Your task to perform on an android device: Search for "dell xps" on bestbuy.com, select the first entry, and add it to the cart. Image 0: 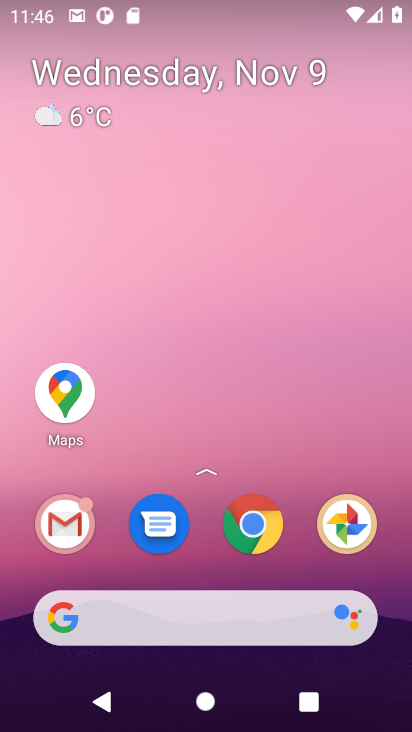
Step 0: click (254, 535)
Your task to perform on an android device: Search for "dell xps" on bestbuy.com, select the first entry, and add it to the cart. Image 1: 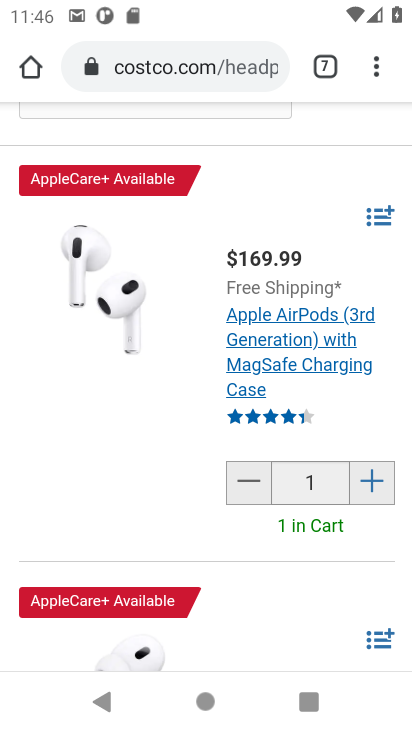
Step 1: click (326, 64)
Your task to perform on an android device: Search for "dell xps" on bestbuy.com, select the first entry, and add it to the cart. Image 2: 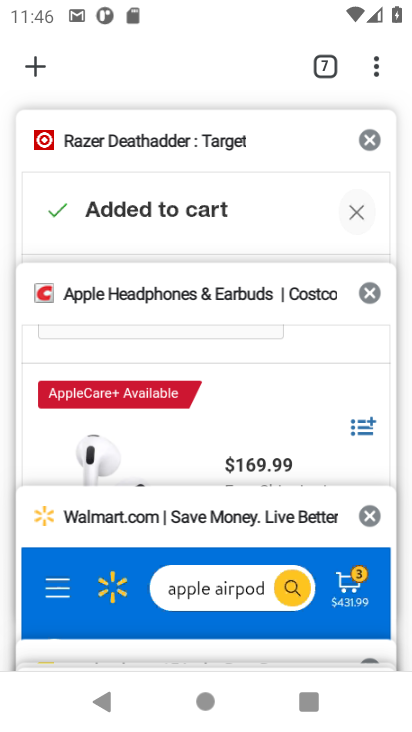
Step 2: drag from (93, 593) to (129, 535)
Your task to perform on an android device: Search for "dell xps" on bestbuy.com, select the first entry, and add it to the cart. Image 3: 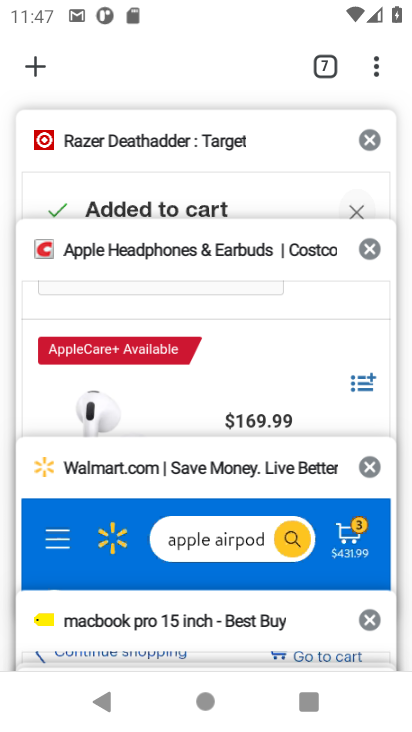
Step 3: click (129, 633)
Your task to perform on an android device: Search for "dell xps" on bestbuy.com, select the first entry, and add it to the cart. Image 4: 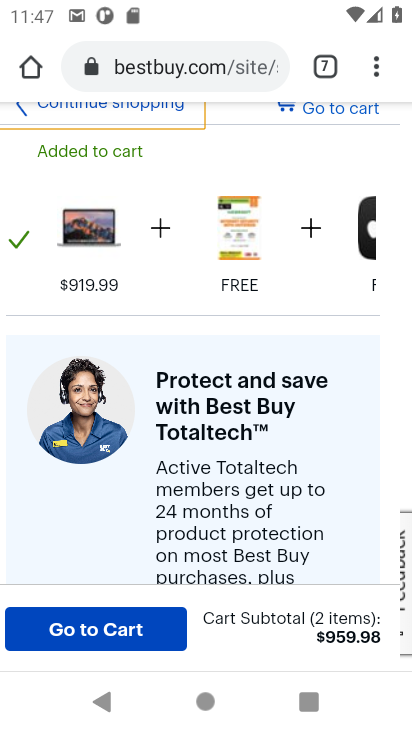
Step 4: drag from (244, 125) to (193, 352)
Your task to perform on an android device: Search for "dell xps" on bestbuy.com, select the first entry, and add it to the cart. Image 5: 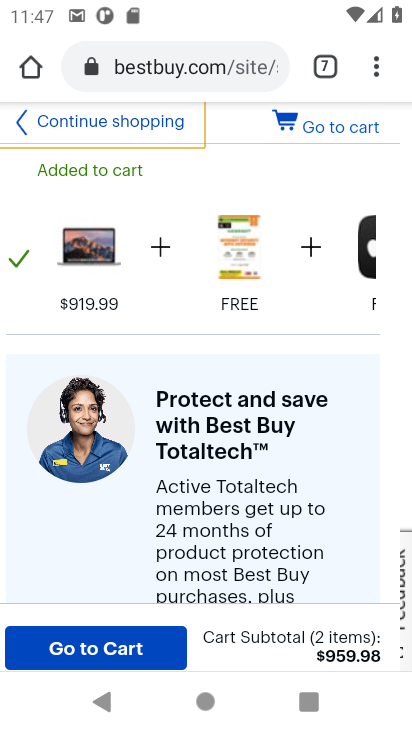
Step 5: click (146, 122)
Your task to perform on an android device: Search for "dell xps" on bestbuy.com, select the first entry, and add it to the cart. Image 6: 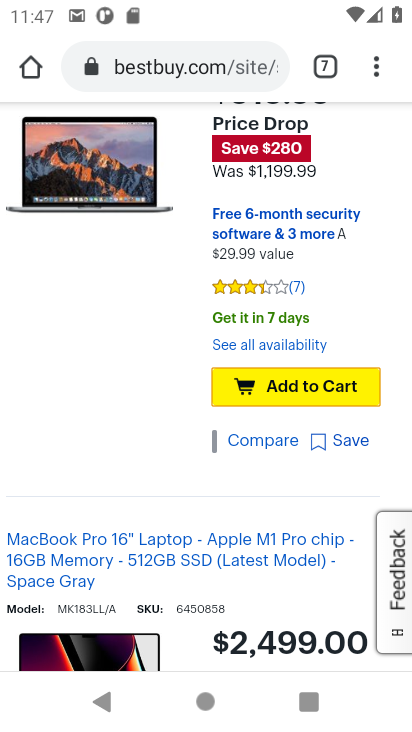
Step 6: drag from (320, 186) to (271, 459)
Your task to perform on an android device: Search for "dell xps" on bestbuy.com, select the first entry, and add it to the cart. Image 7: 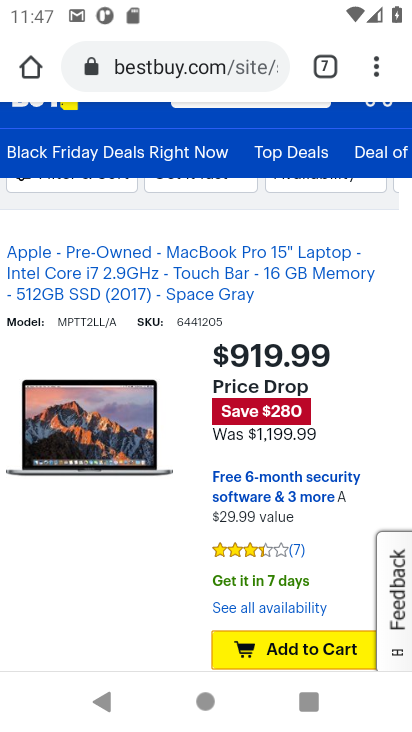
Step 7: drag from (212, 129) to (189, 440)
Your task to perform on an android device: Search for "dell xps" on bestbuy.com, select the first entry, and add it to the cart. Image 8: 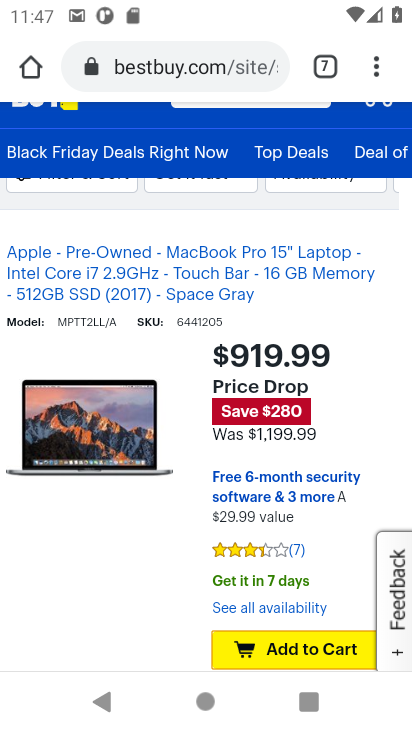
Step 8: drag from (246, 139) to (227, 437)
Your task to perform on an android device: Search for "dell xps" on bestbuy.com, select the first entry, and add it to the cart. Image 9: 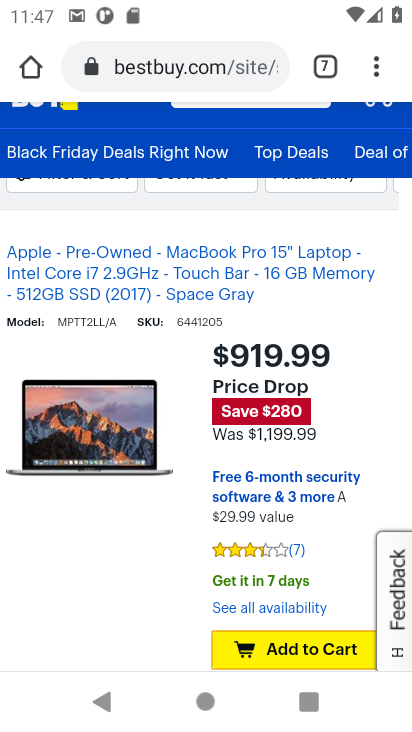
Step 9: drag from (235, 141) to (213, 361)
Your task to perform on an android device: Search for "dell xps" on bestbuy.com, select the first entry, and add it to the cart. Image 10: 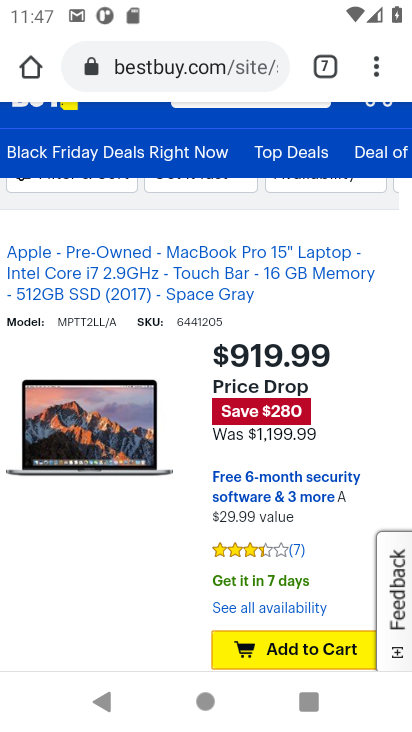
Step 10: click (237, 103)
Your task to perform on an android device: Search for "dell xps" on bestbuy.com, select the first entry, and add it to the cart. Image 11: 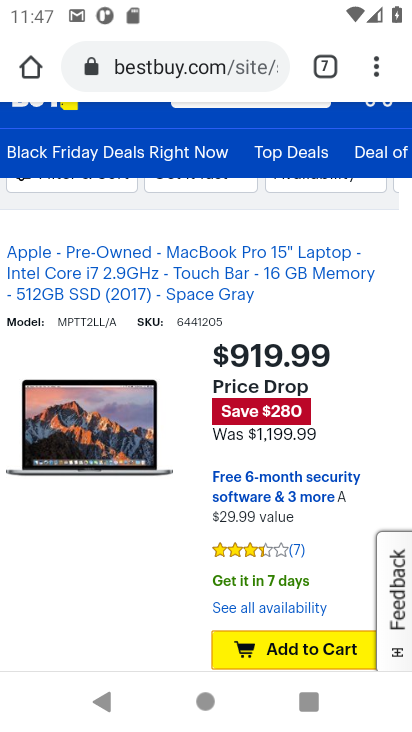
Step 11: drag from (182, 125) to (148, 435)
Your task to perform on an android device: Search for "dell xps" on bestbuy.com, select the first entry, and add it to the cart. Image 12: 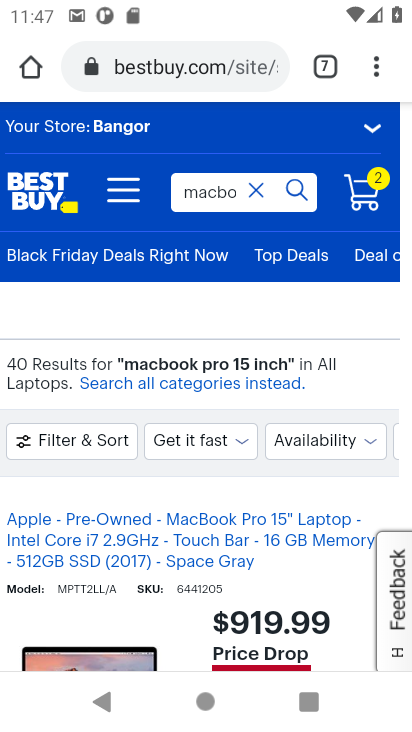
Step 12: click (258, 190)
Your task to perform on an android device: Search for "dell xps" on bestbuy.com, select the first entry, and add it to the cart. Image 13: 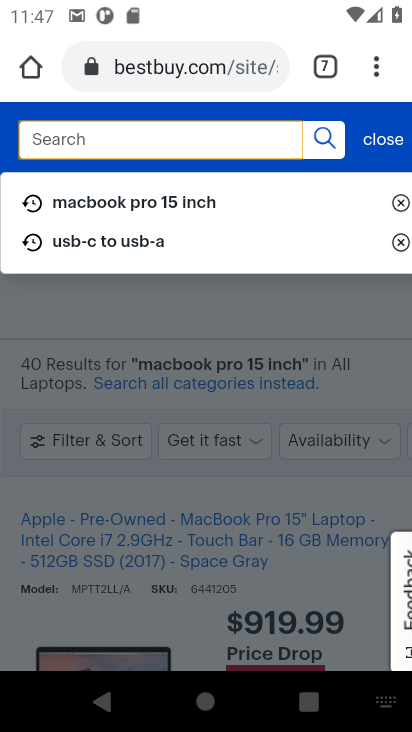
Step 13: type "dell xps"
Your task to perform on an android device: Search for "dell xps" on bestbuy.com, select the first entry, and add it to the cart. Image 14: 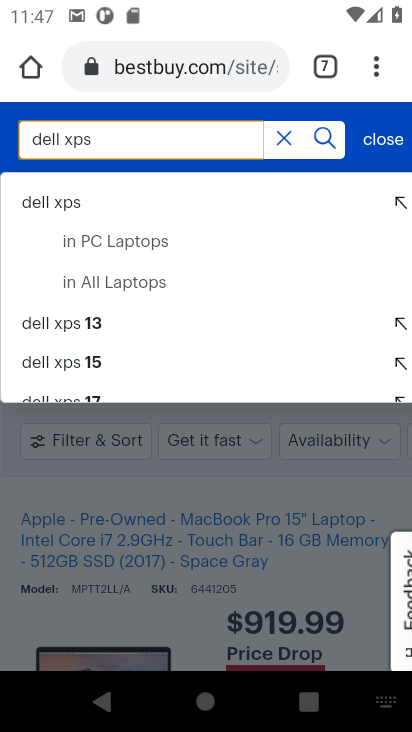
Step 14: click (55, 202)
Your task to perform on an android device: Search for "dell xps" on bestbuy.com, select the first entry, and add it to the cart. Image 15: 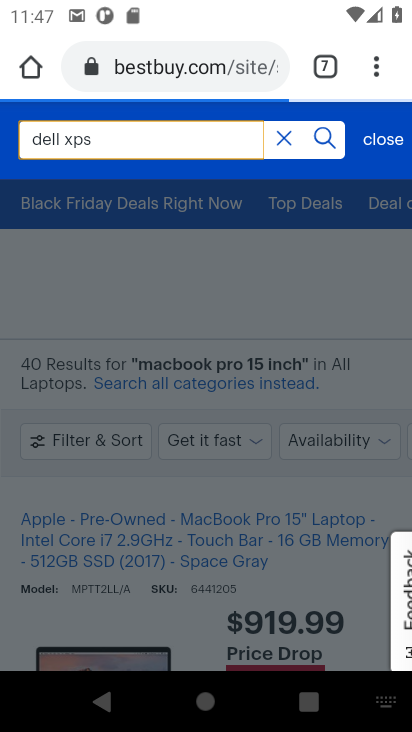
Step 15: click (327, 135)
Your task to perform on an android device: Search for "dell xps" on bestbuy.com, select the first entry, and add it to the cart. Image 16: 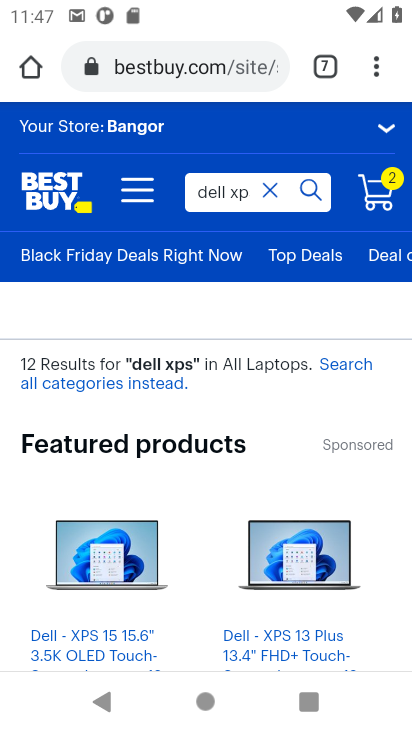
Step 16: drag from (224, 562) to (321, 197)
Your task to perform on an android device: Search for "dell xps" on bestbuy.com, select the first entry, and add it to the cart. Image 17: 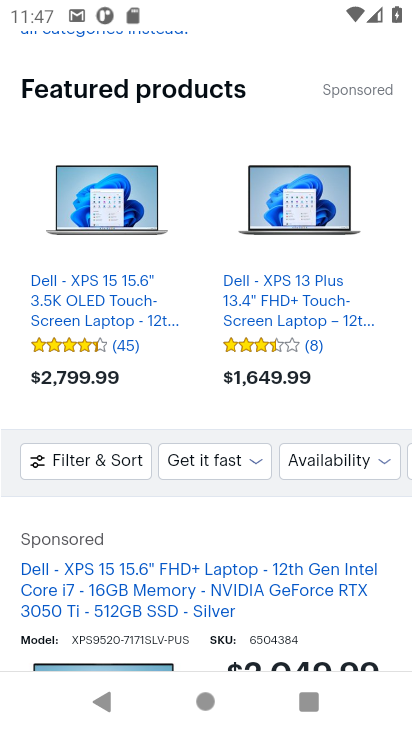
Step 17: drag from (159, 528) to (250, 239)
Your task to perform on an android device: Search for "dell xps" on bestbuy.com, select the first entry, and add it to the cart. Image 18: 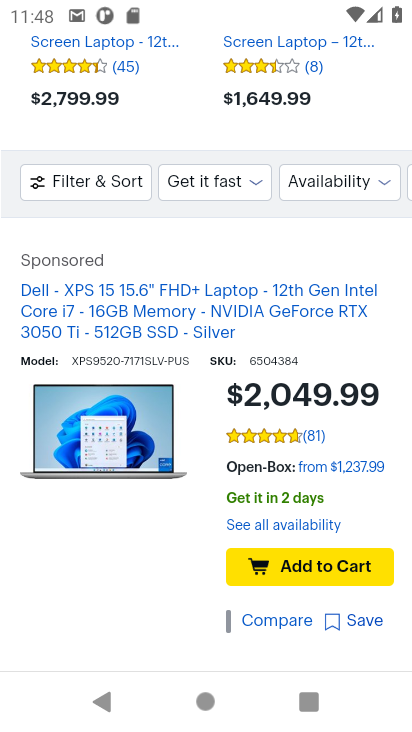
Step 18: click (278, 607)
Your task to perform on an android device: Search for "dell xps" on bestbuy.com, select the first entry, and add it to the cart. Image 19: 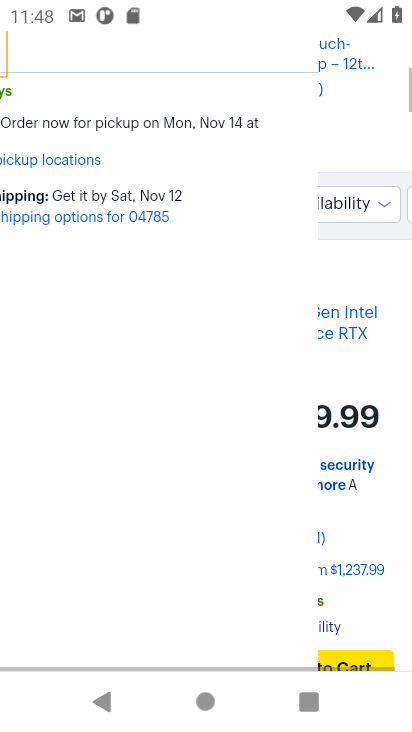
Step 19: click (306, 573)
Your task to perform on an android device: Search for "dell xps" on bestbuy.com, select the first entry, and add it to the cart. Image 20: 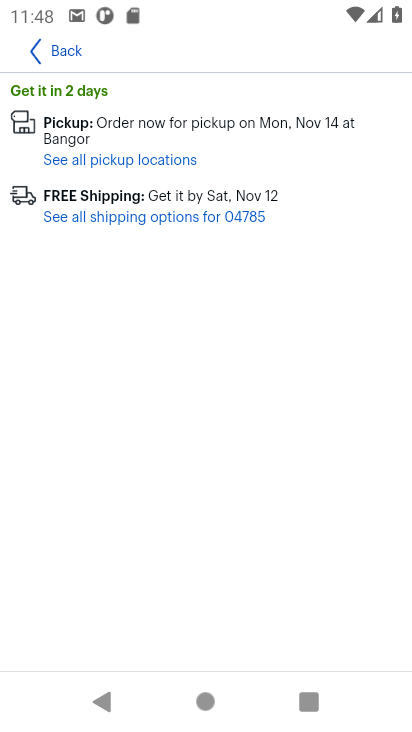
Step 20: click (59, 46)
Your task to perform on an android device: Search for "dell xps" on bestbuy.com, select the first entry, and add it to the cart. Image 21: 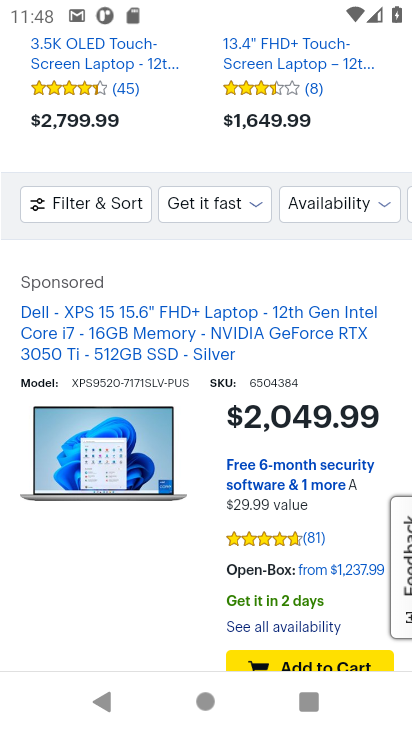
Step 21: click (290, 658)
Your task to perform on an android device: Search for "dell xps" on bestbuy.com, select the first entry, and add it to the cart. Image 22: 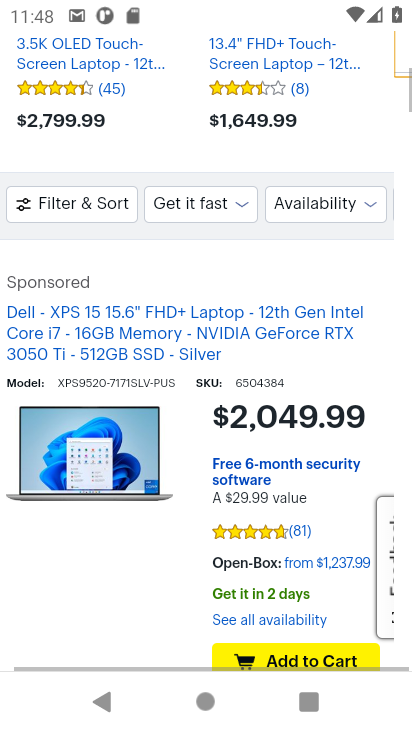
Step 22: task complete